Your task to perform on an android device: set an alarm Image 0: 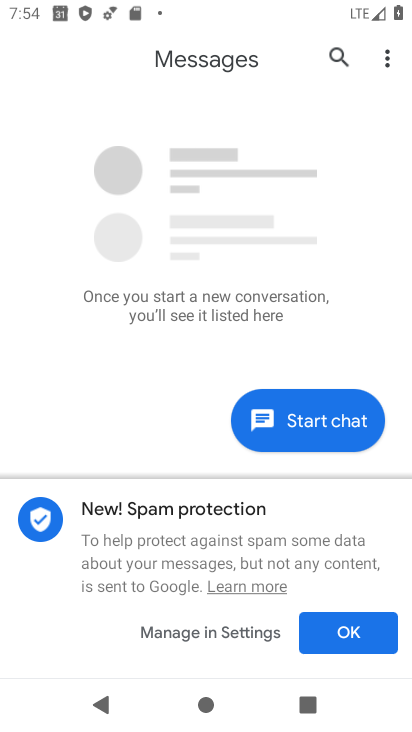
Step 0: press home button
Your task to perform on an android device: set an alarm Image 1: 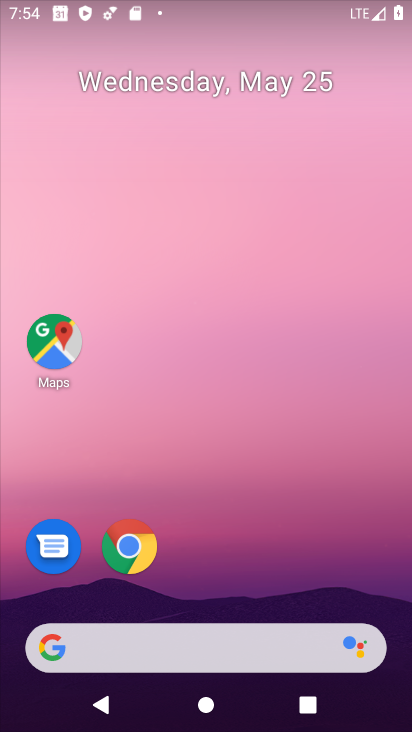
Step 1: drag from (387, 594) to (374, 246)
Your task to perform on an android device: set an alarm Image 2: 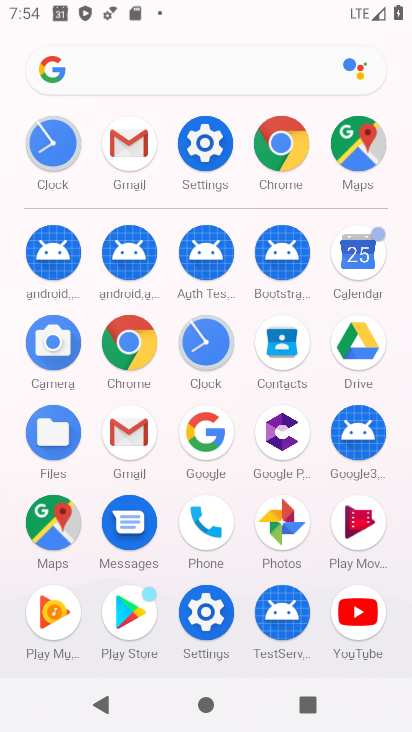
Step 2: click (216, 351)
Your task to perform on an android device: set an alarm Image 3: 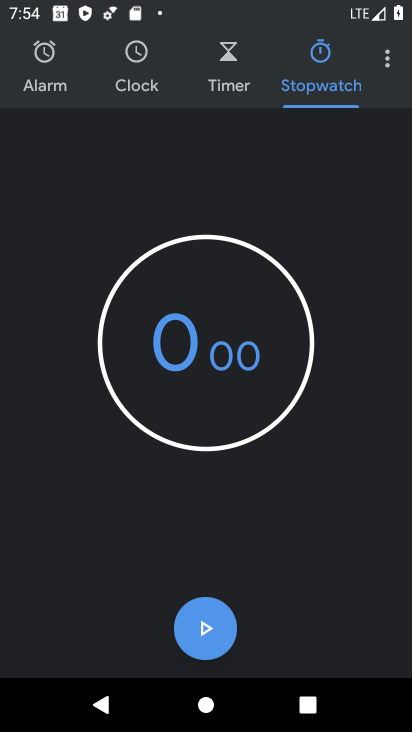
Step 3: click (45, 74)
Your task to perform on an android device: set an alarm Image 4: 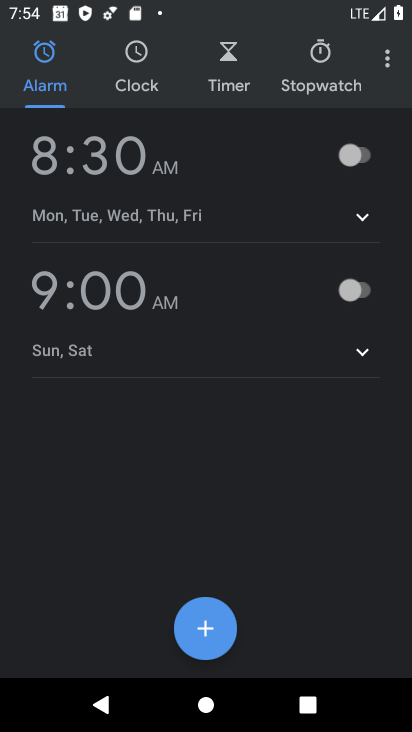
Step 4: click (195, 638)
Your task to perform on an android device: set an alarm Image 5: 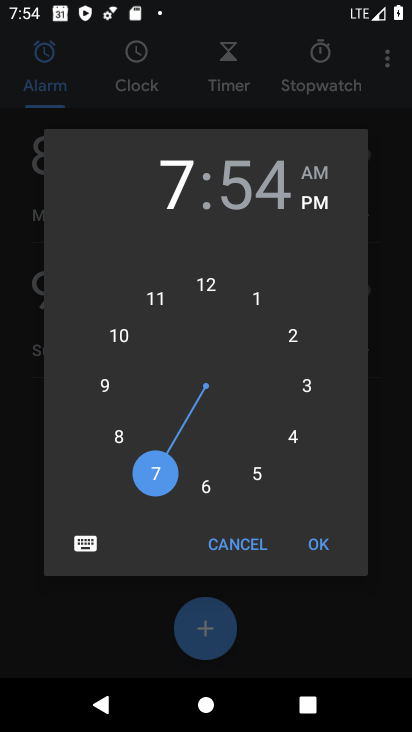
Step 5: click (106, 380)
Your task to perform on an android device: set an alarm Image 6: 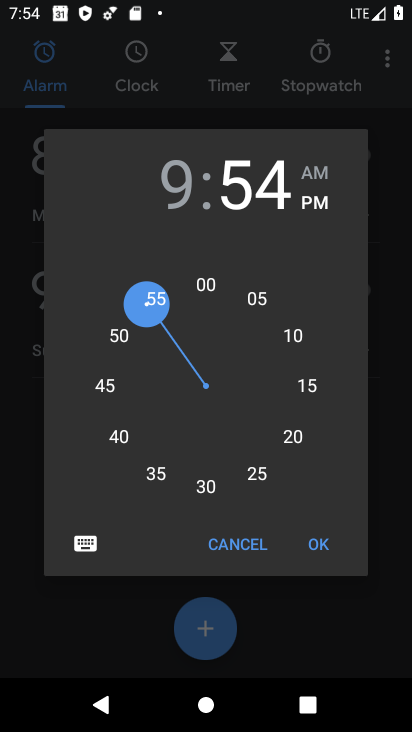
Step 6: click (312, 545)
Your task to perform on an android device: set an alarm Image 7: 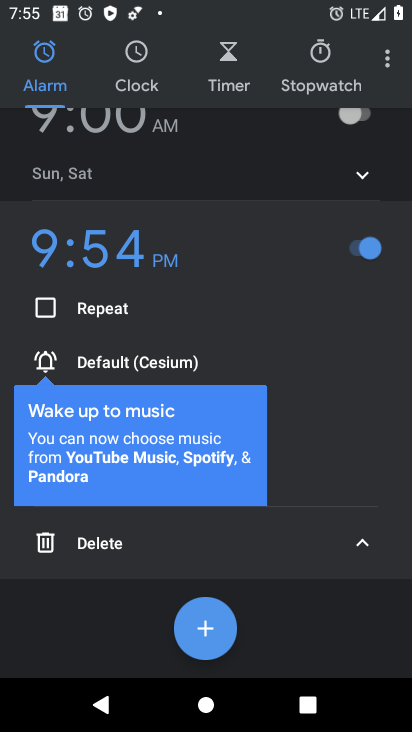
Step 7: task complete